Your task to perform on an android device: change notifications settings Image 0: 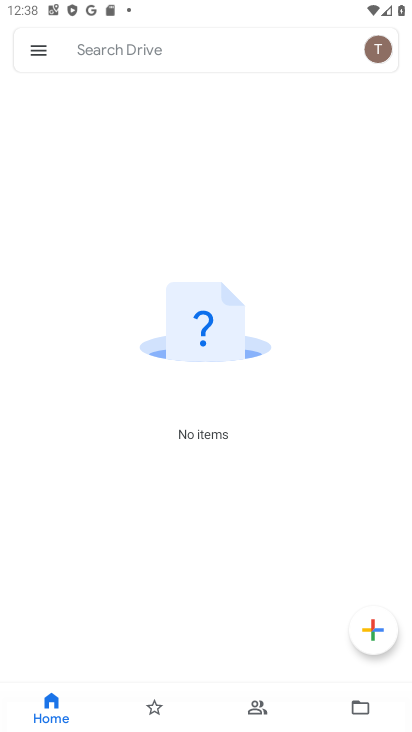
Step 0: press home button
Your task to perform on an android device: change notifications settings Image 1: 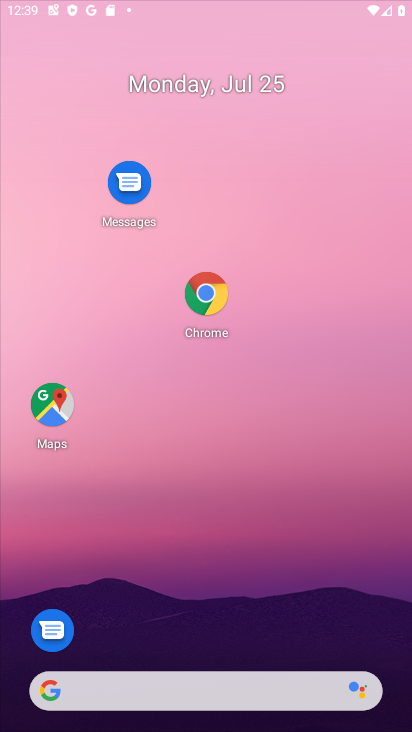
Step 1: drag from (260, 604) to (323, 74)
Your task to perform on an android device: change notifications settings Image 2: 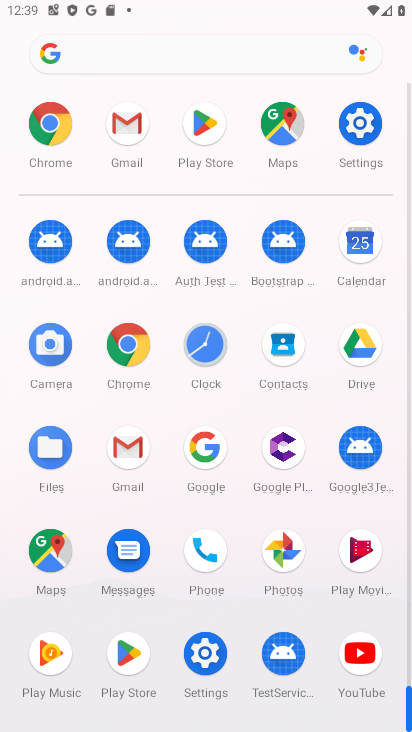
Step 2: drag from (223, 606) to (263, 267)
Your task to perform on an android device: change notifications settings Image 3: 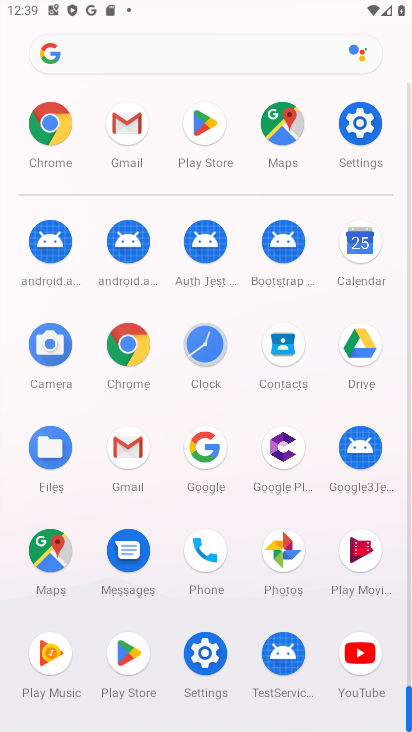
Step 3: click (203, 624)
Your task to perform on an android device: change notifications settings Image 4: 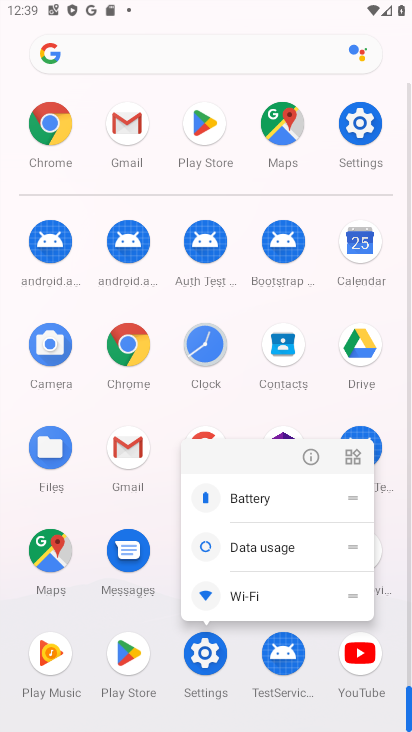
Step 4: click (200, 644)
Your task to perform on an android device: change notifications settings Image 5: 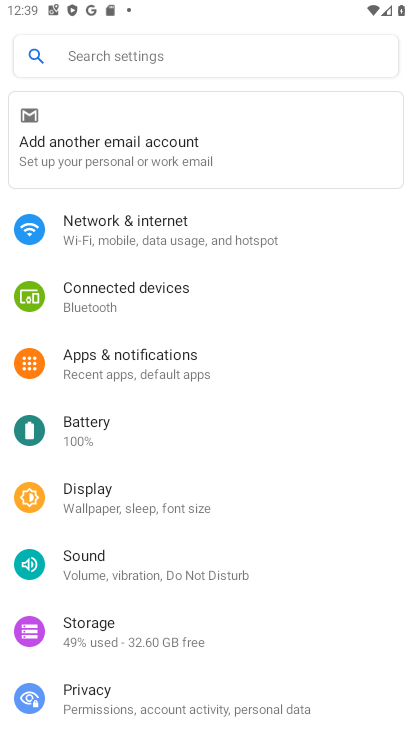
Step 5: click (150, 344)
Your task to perform on an android device: change notifications settings Image 6: 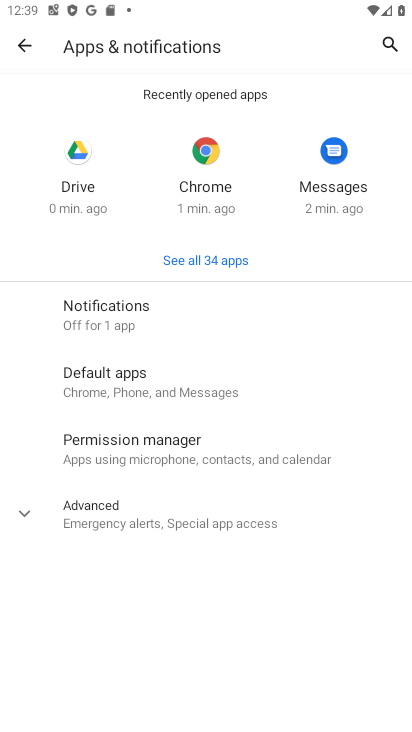
Step 6: click (103, 311)
Your task to perform on an android device: change notifications settings Image 7: 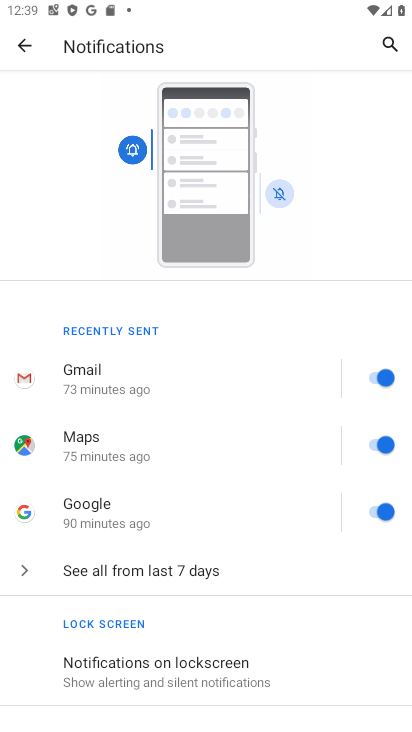
Step 7: click (376, 507)
Your task to perform on an android device: change notifications settings Image 8: 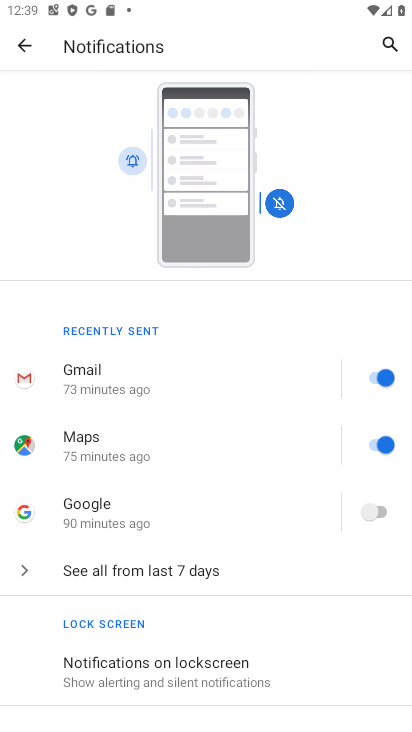
Step 8: task complete